Your task to perform on an android device: Clear the cart on amazon. Search for dell alienware on amazon, select the first entry, and add it to the cart. Image 0: 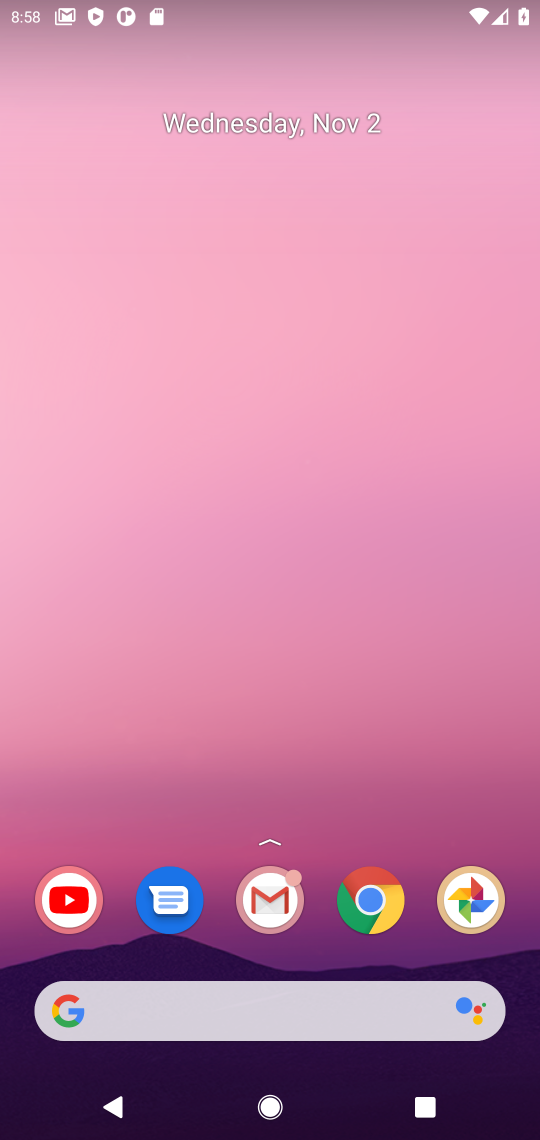
Step 0: click (360, 912)
Your task to perform on an android device: Clear the cart on amazon. Search for dell alienware on amazon, select the first entry, and add it to the cart. Image 1: 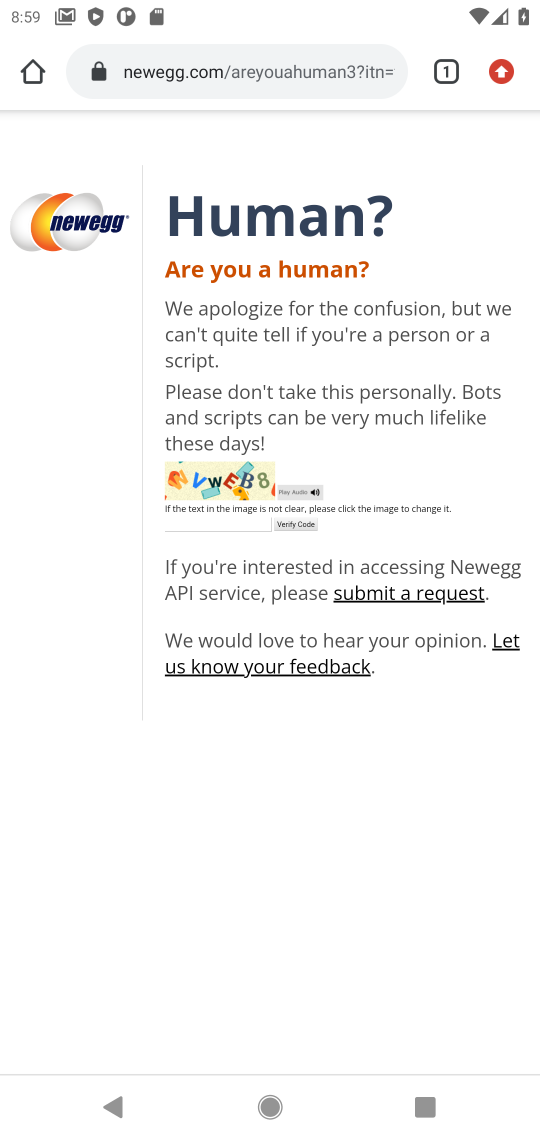
Step 1: click (231, 67)
Your task to perform on an android device: Clear the cart on amazon. Search for dell alienware on amazon, select the first entry, and add it to the cart. Image 2: 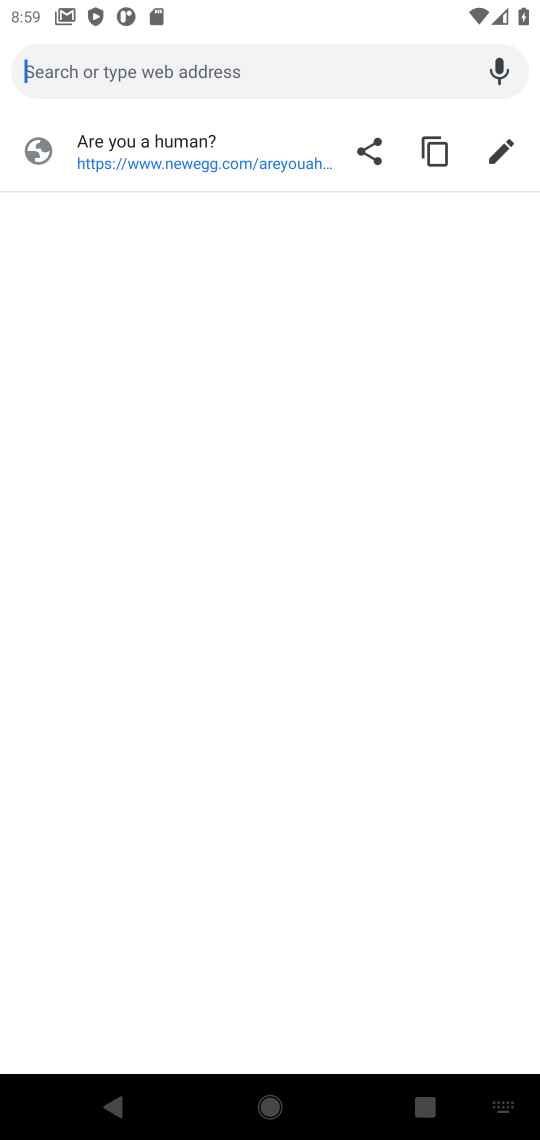
Step 2: type "amazon"
Your task to perform on an android device: Clear the cart on amazon. Search for dell alienware on amazon, select the first entry, and add it to the cart. Image 3: 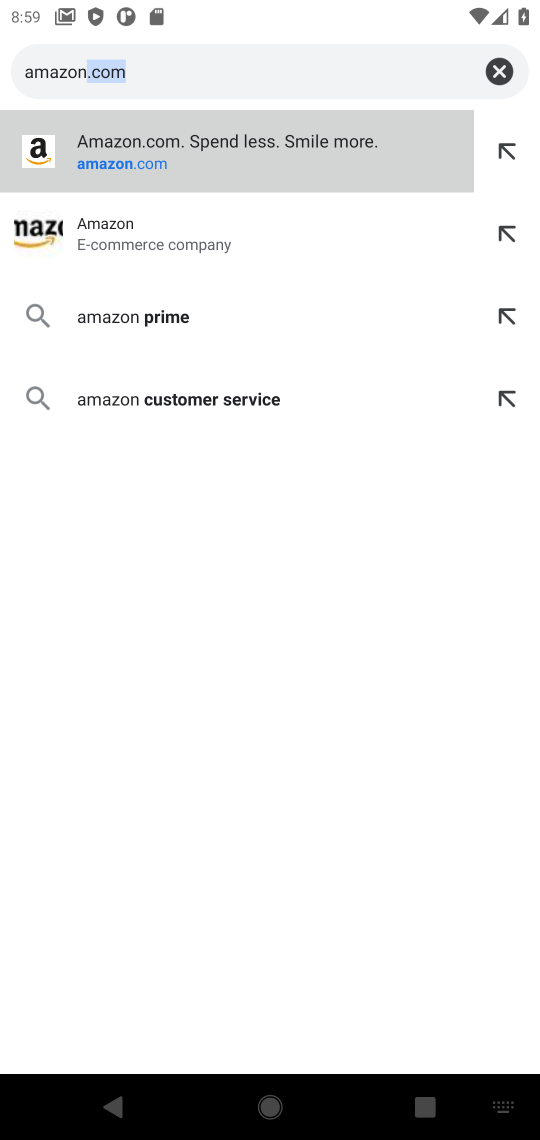
Step 3: click (216, 269)
Your task to perform on an android device: Clear the cart on amazon. Search for dell alienware on amazon, select the first entry, and add it to the cart. Image 4: 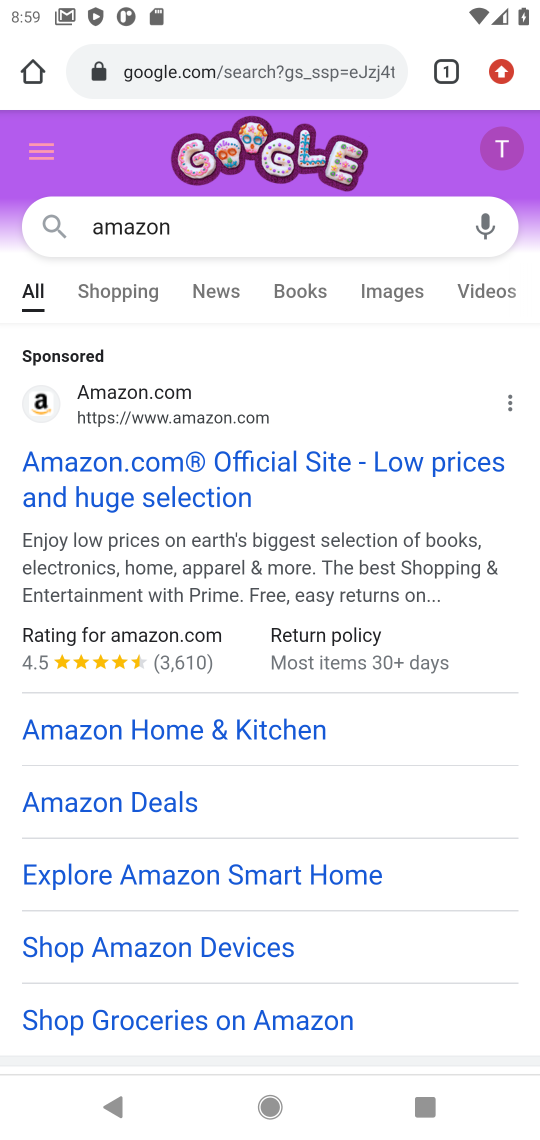
Step 4: click (191, 485)
Your task to perform on an android device: Clear the cart on amazon. Search for dell alienware on amazon, select the first entry, and add it to the cart. Image 5: 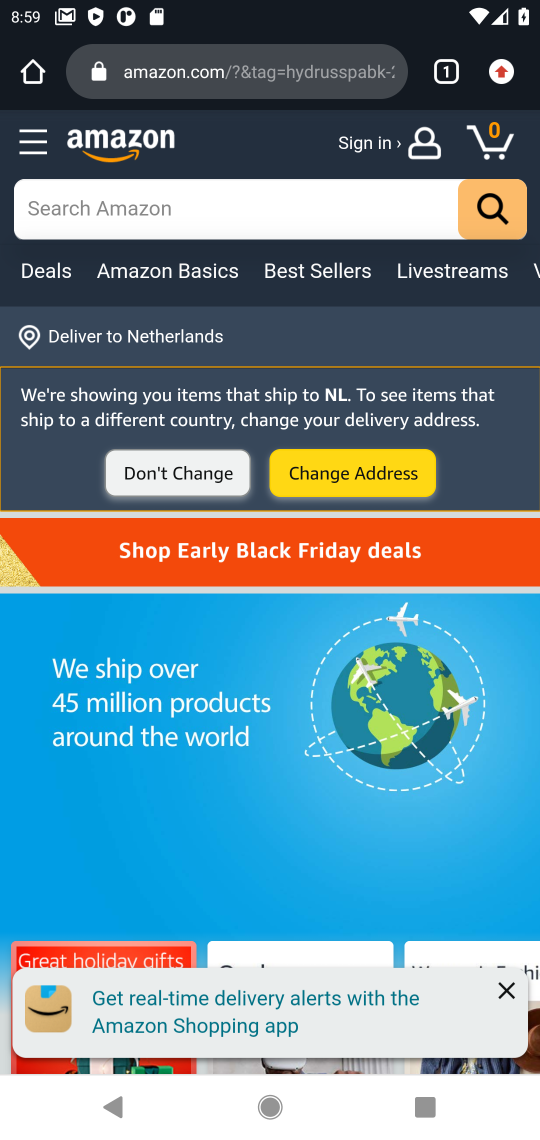
Step 5: click (496, 149)
Your task to perform on an android device: Clear the cart on amazon. Search for dell alienware on amazon, select the first entry, and add it to the cart. Image 6: 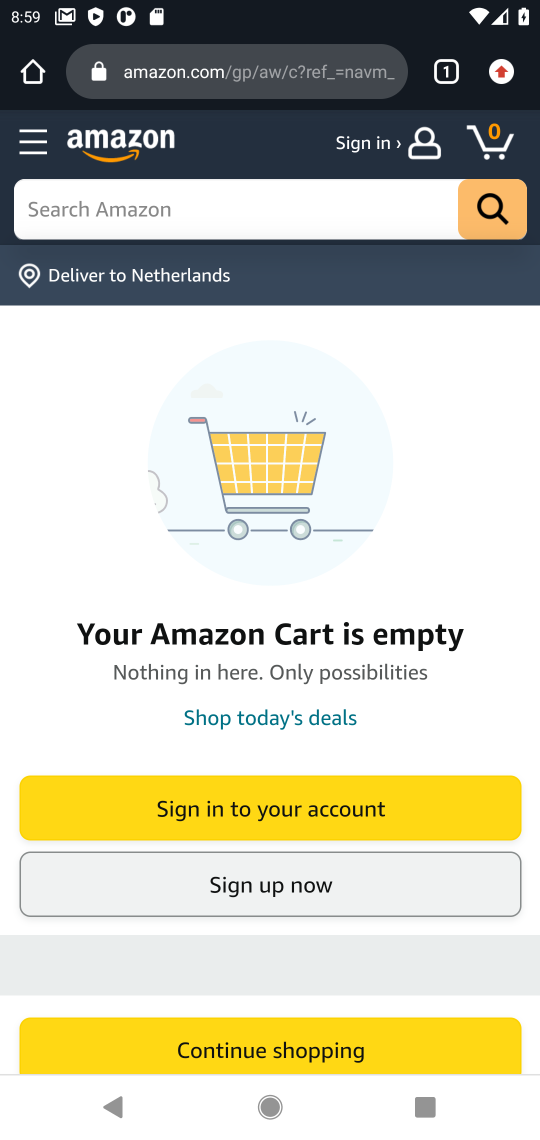
Step 6: click (192, 193)
Your task to perform on an android device: Clear the cart on amazon. Search for dell alienware on amazon, select the first entry, and add it to the cart. Image 7: 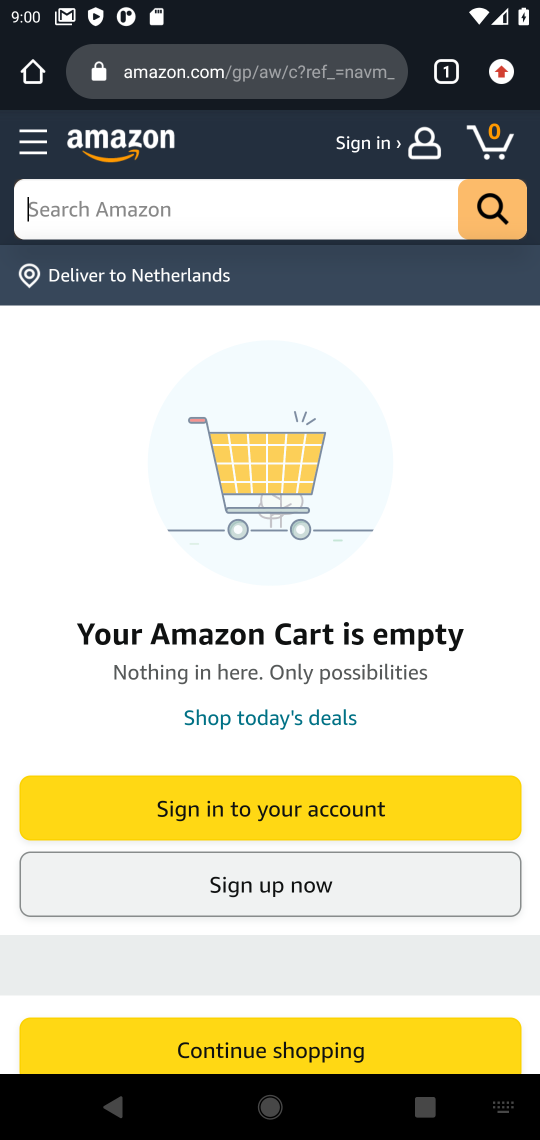
Step 7: type "dell alienware"
Your task to perform on an android device: Clear the cart on amazon. Search for dell alienware on amazon, select the first entry, and add it to the cart. Image 8: 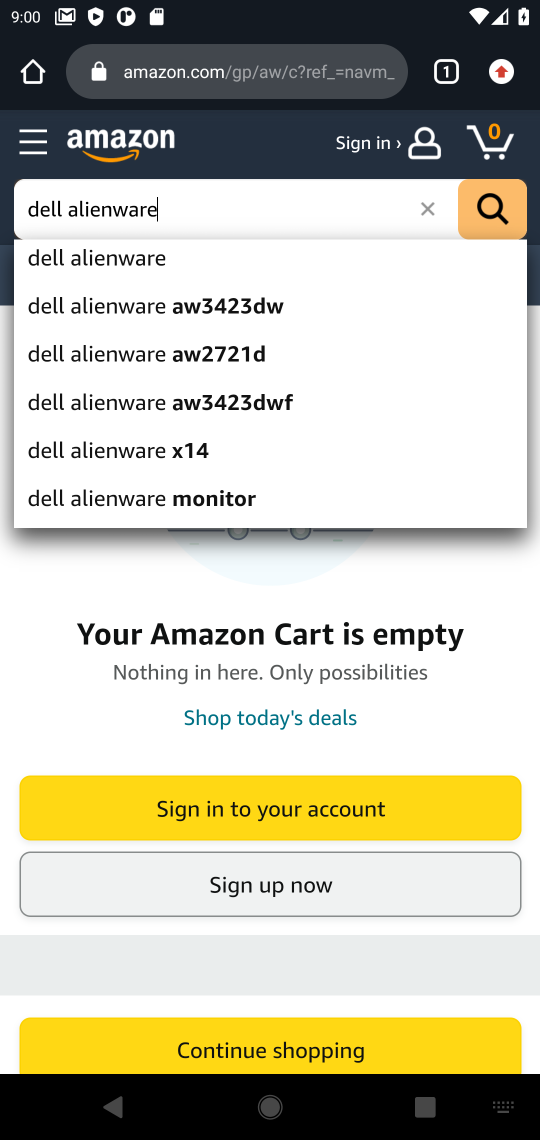
Step 8: click (502, 194)
Your task to perform on an android device: Clear the cart on amazon. Search for dell alienware on amazon, select the first entry, and add it to the cart. Image 9: 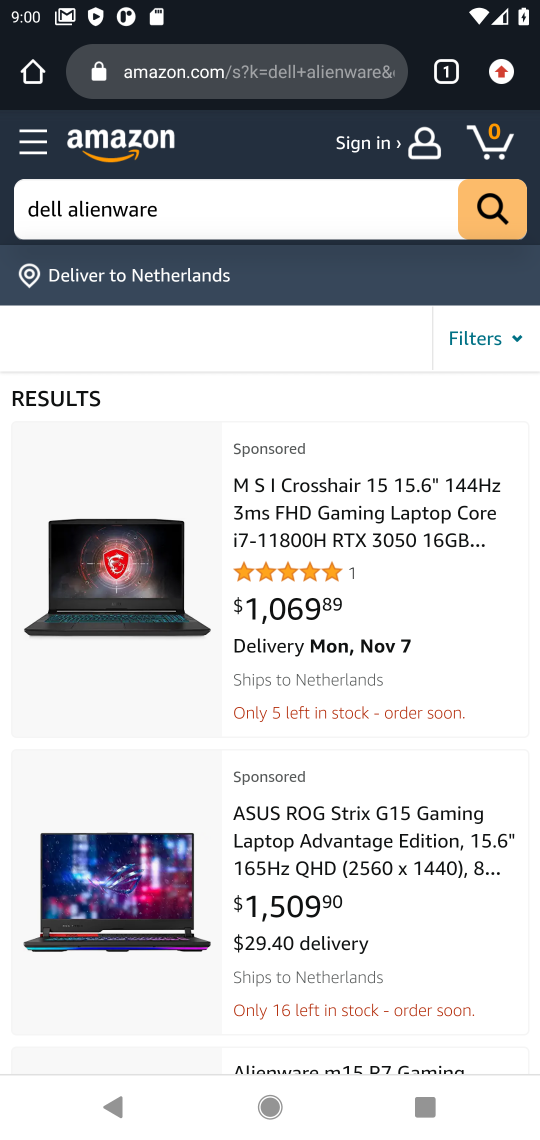
Step 9: drag from (244, 1042) to (267, 355)
Your task to perform on an android device: Clear the cart on amazon. Search for dell alienware on amazon, select the first entry, and add it to the cart. Image 10: 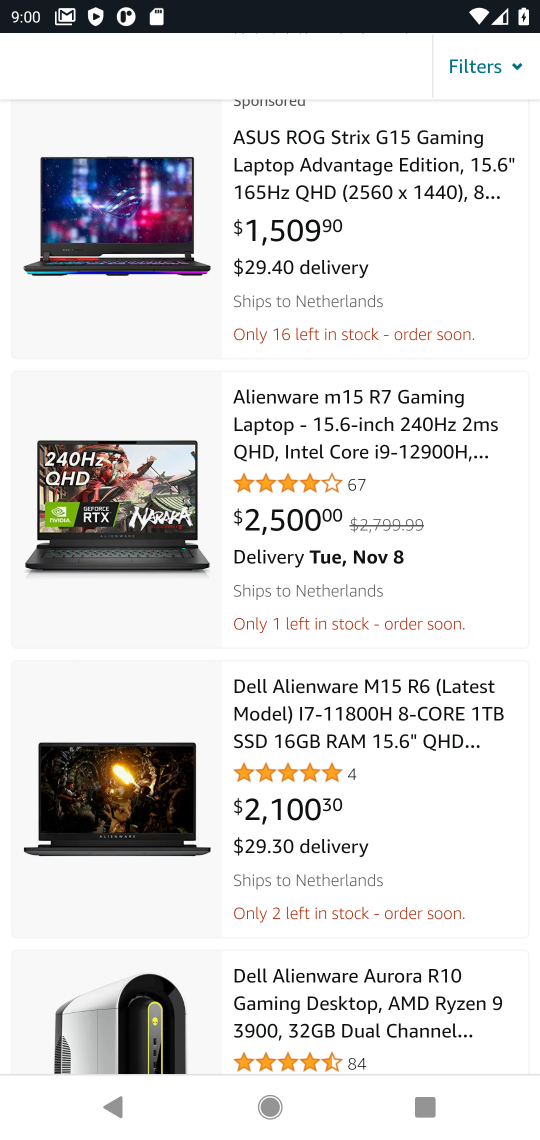
Step 10: click (278, 699)
Your task to perform on an android device: Clear the cart on amazon. Search for dell alienware on amazon, select the first entry, and add it to the cart. Image 11: 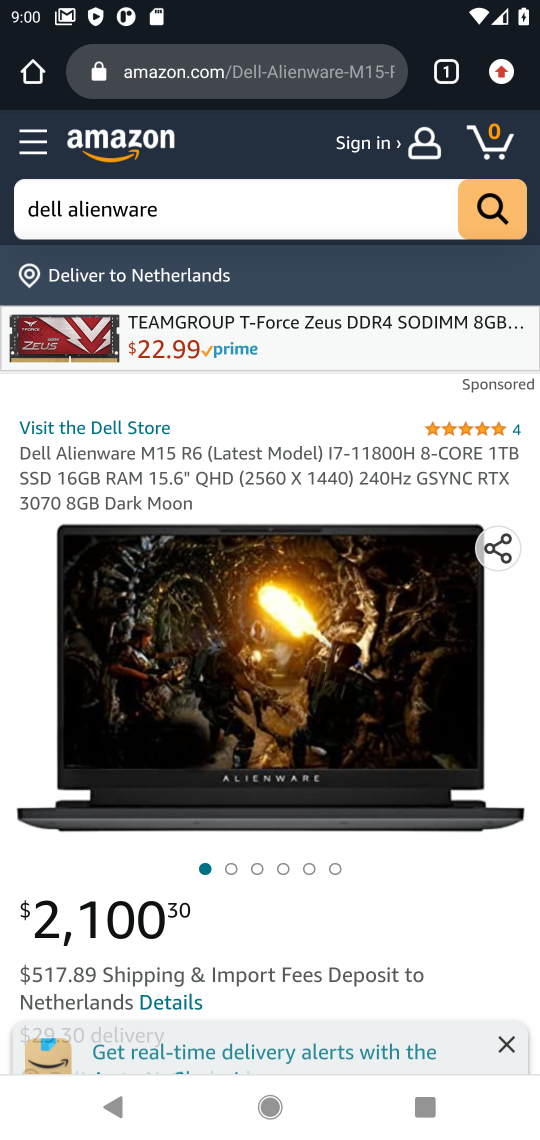
Step 11: drag from (314, 943) to (326, 348)
Your task to perform on an android device: Clear the cart on amazon. Search for dell alienware on amazon, select the first entry, and add it to the cart. Image 12: 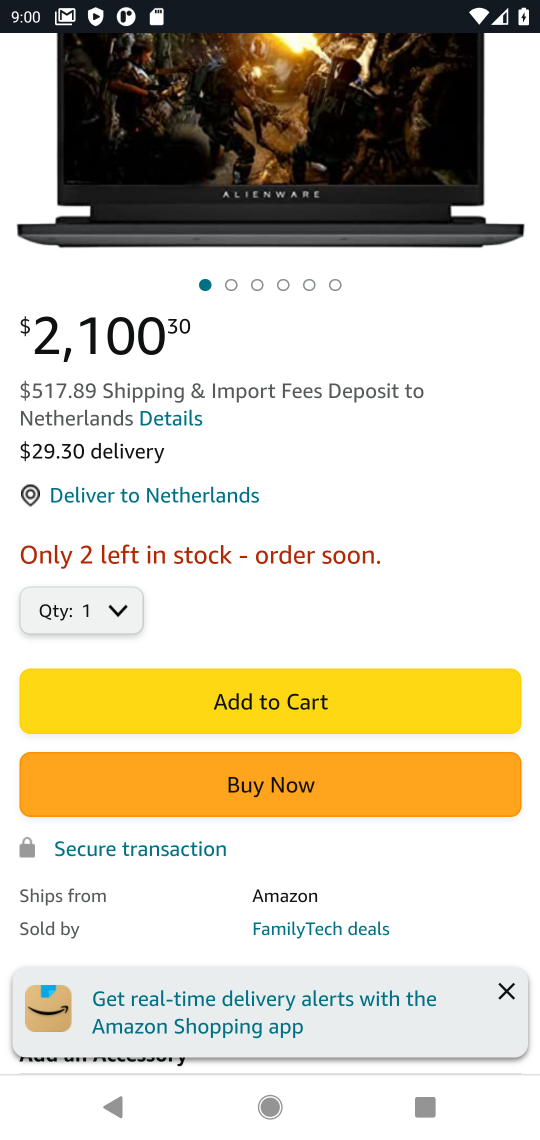
Step 12: click (242, 692)
Your task to perform on an android device: Clear the cart on amazon. Search for dell alienware on amazon, select the first entry, and add it to the cart. Image 13: 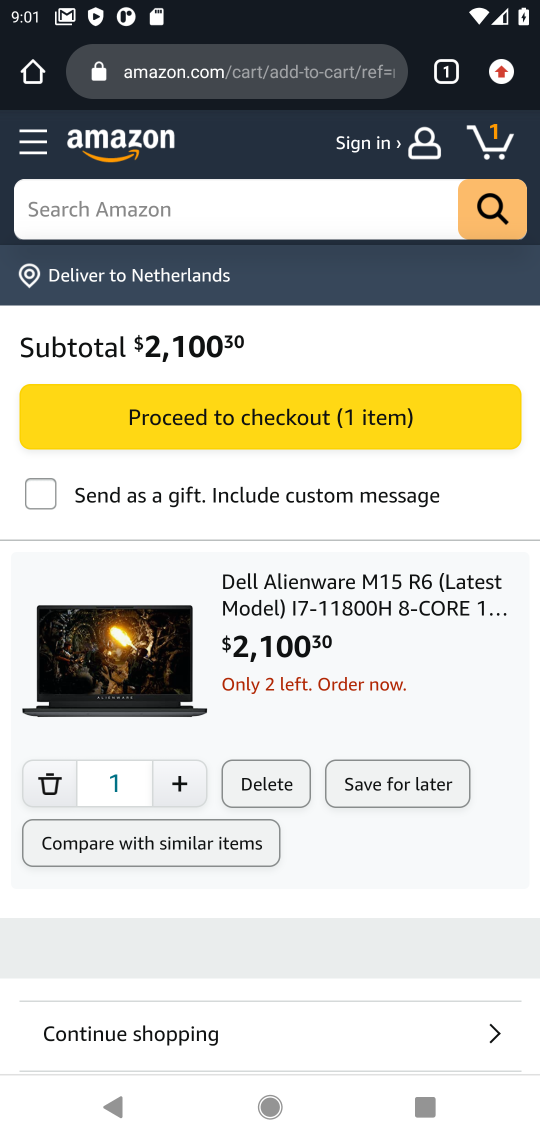
Step 13: task complete